Your task to perform on an android device: open app "Firefox Browser" (install if not already installed), go to login, and select forgot password Image 0: 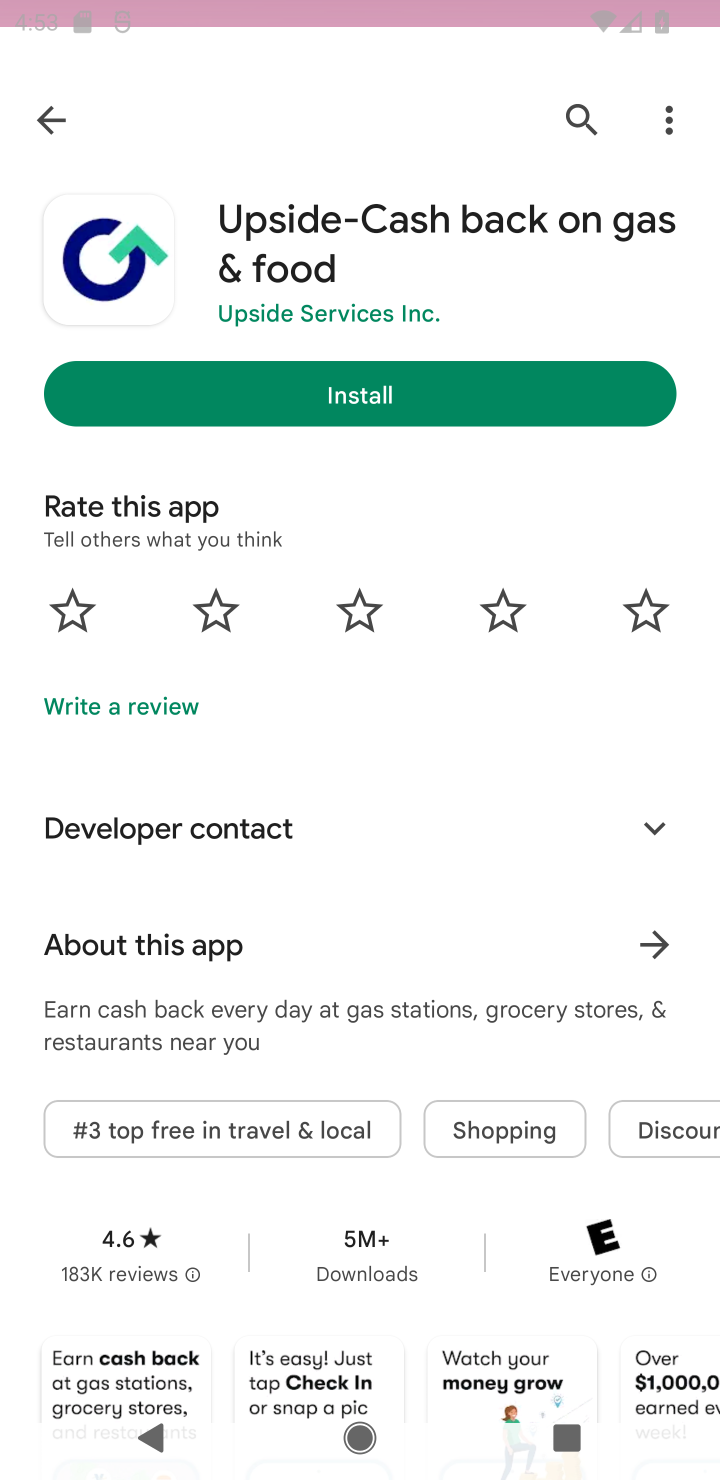
Step 0: click (351, 344)
Your task to perform on an android device: open app "Firefox Browser" (install if not already installed), go to login, and select forgot password Image 1: 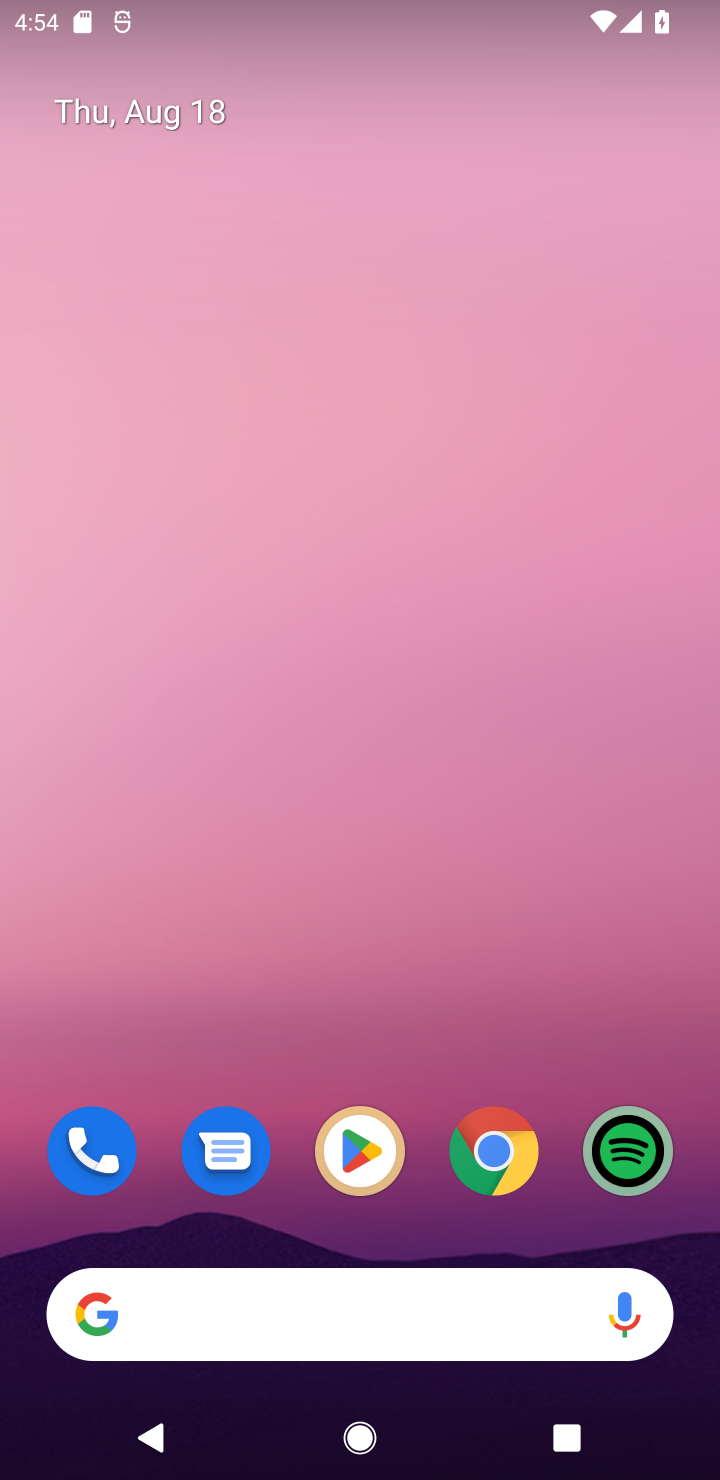
Step 1: drag from (432, 1135) to (509, 74)
Your task to perform on an android device: open app "Firefox Browser" (install if not already installed), go to login, and select forgot password Image 2: 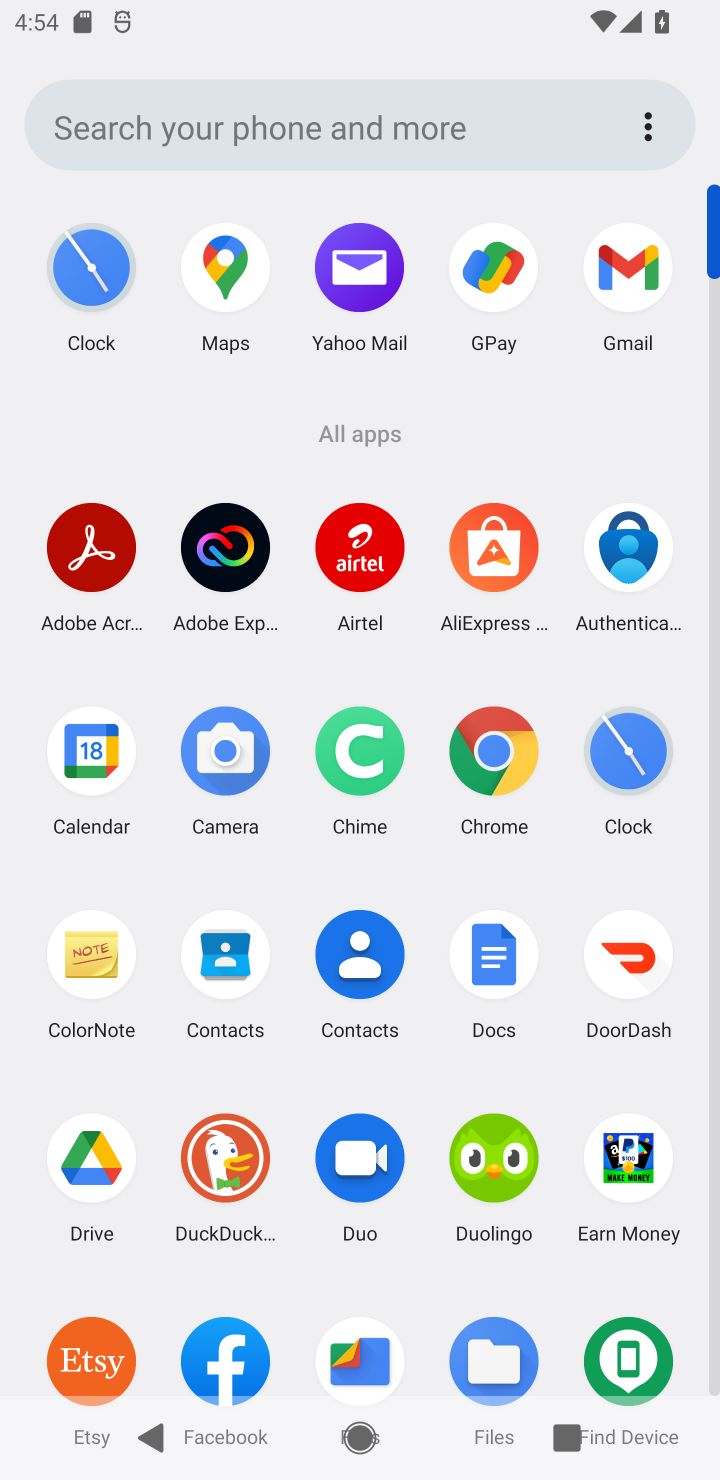
Step 2: drag from (336, 982) to (381, 684)
Your task to perform on an android device: open app "Firefox Browser" (install if not already installed), go to login, and select forgot password Image 3: 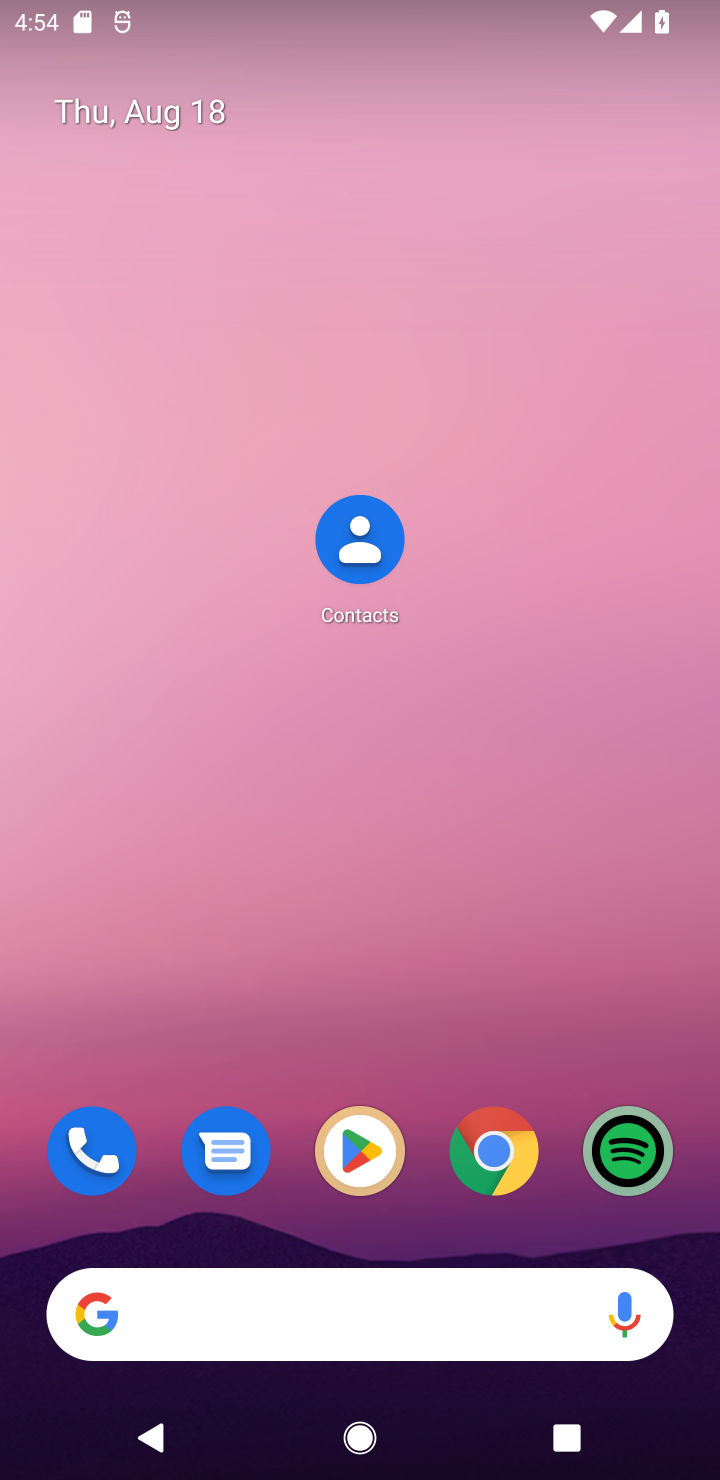
Step 3: press home button
Your task to perform on an android device: open app "Firefox Browser" (install if not already installed), go to login, and select forgot password Image 4: 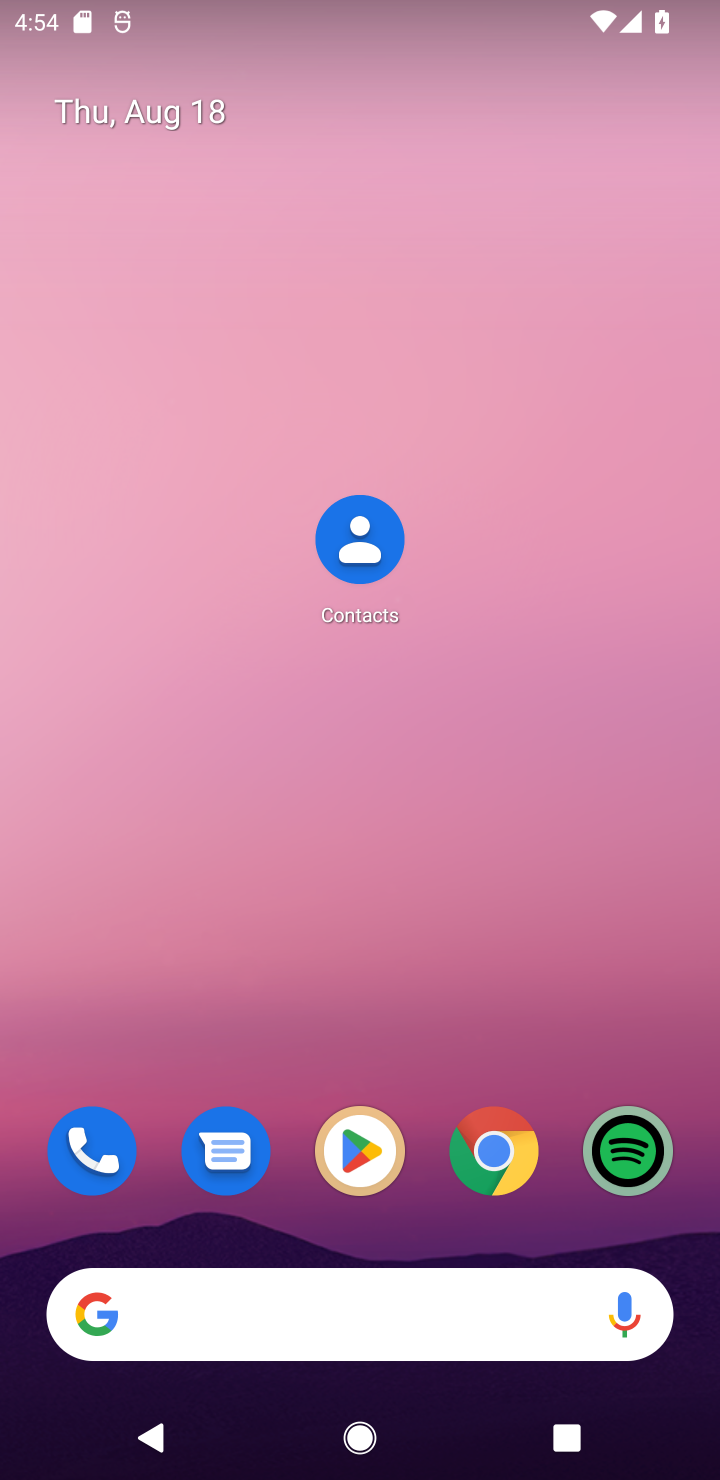
Step 4: click (355, 1156)
Your task to perform on an android device: open app "Firefox Browser" (install if not already installed), go to login, and select forgot password Image 5: 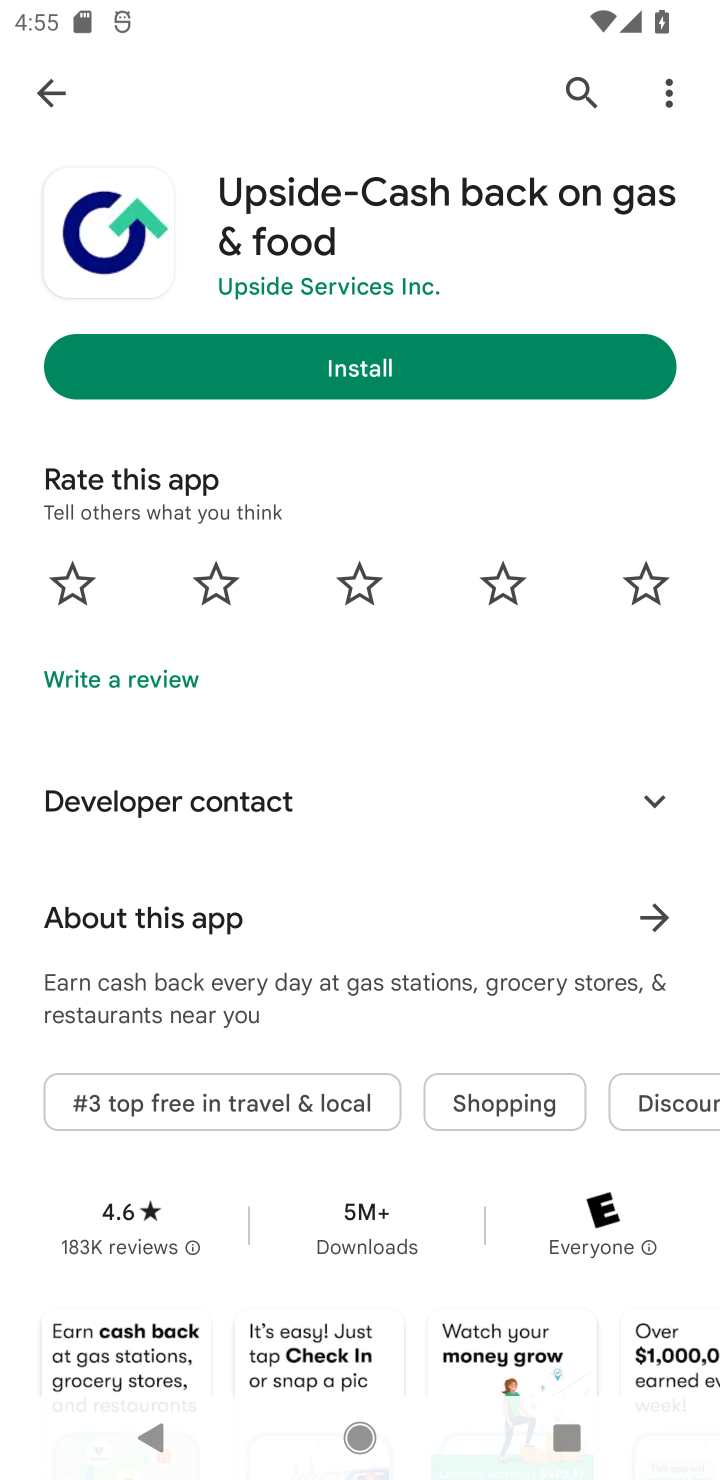
Step 5: click (452, 376)
Your task to perform on an android device: open app "Firefox Browser" (install if not already installed), go to login, and select forgot password Image 6: 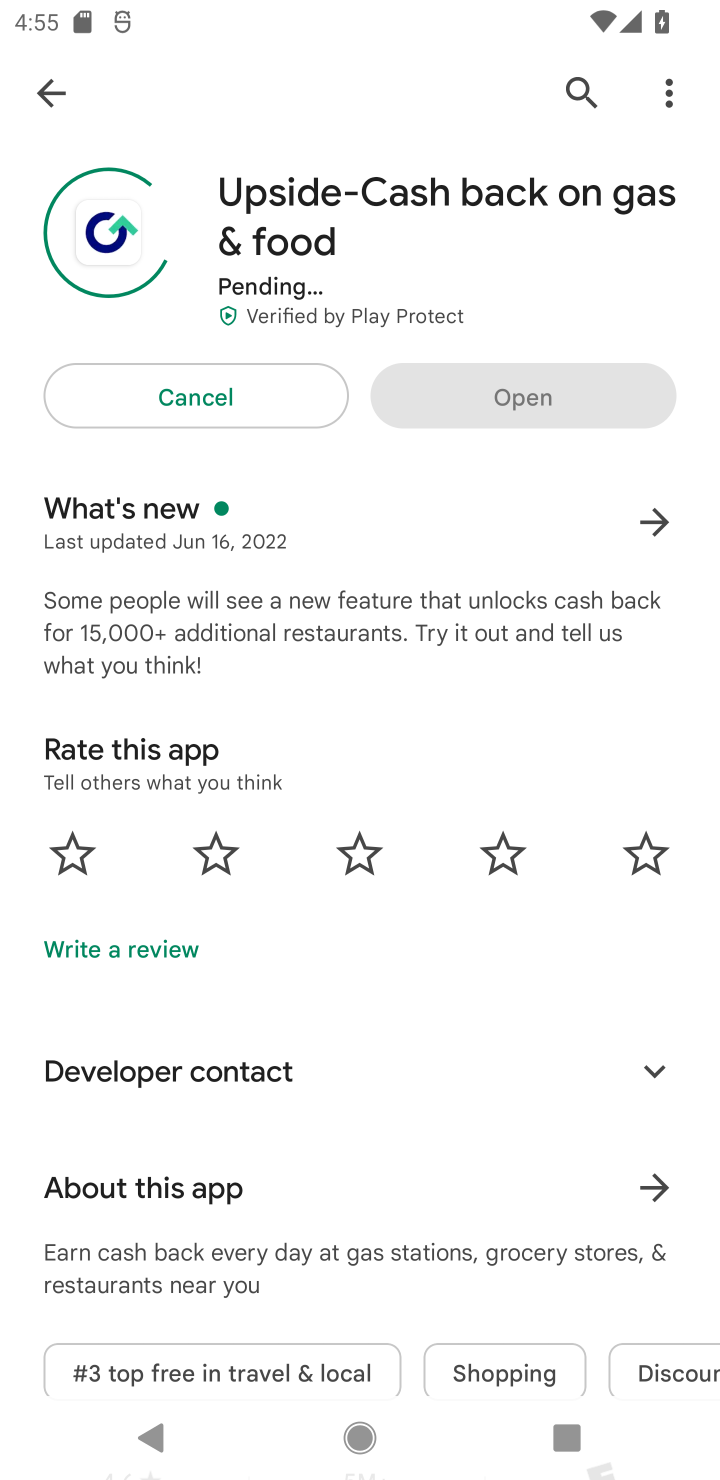
Step 6: click (609, 98)
Your task to perform on an android device: open app "Firefox Browser" (install if not already installed), go to login, and select forgot password Image 7: 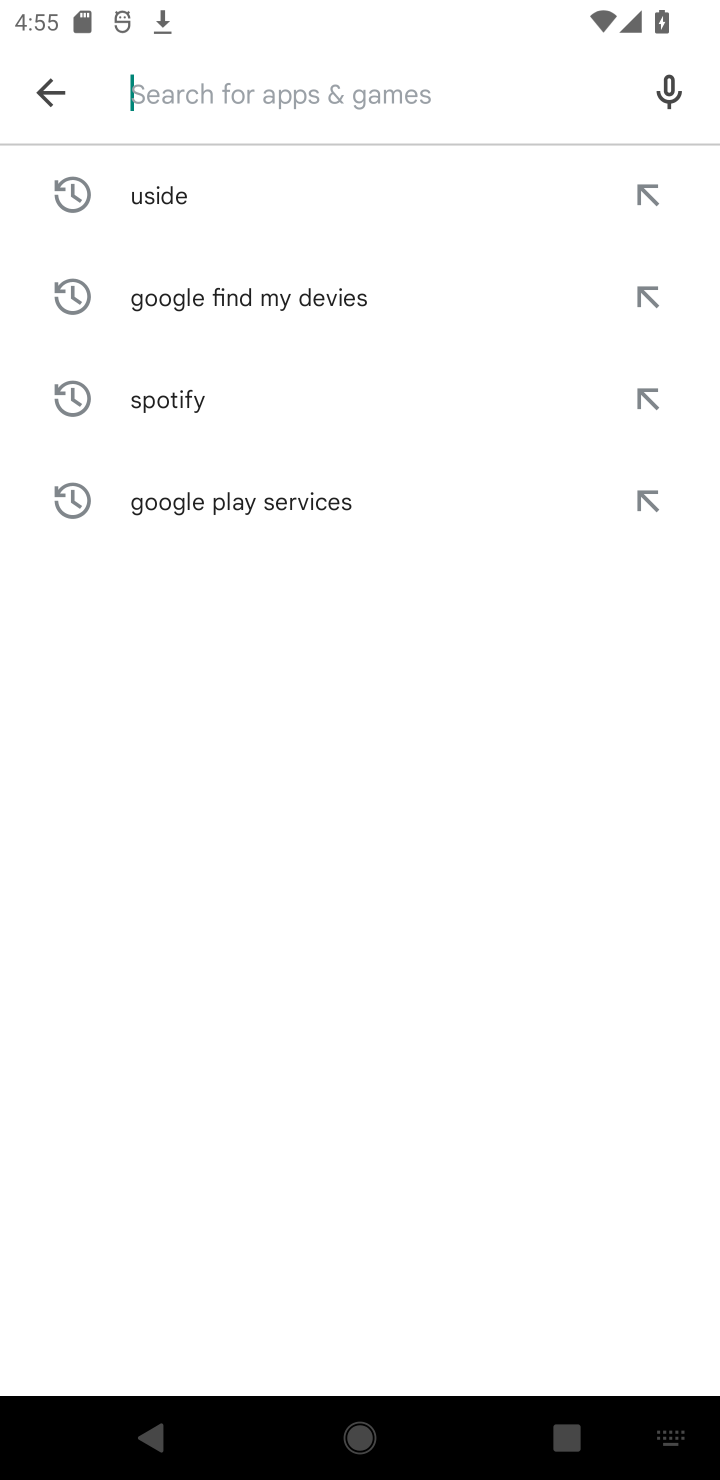
Step 7: type "firefox"
Your task to perform on an android device: open app "Firefox Browser" (install if not already installed), go to login, and select forgot password Image 8: 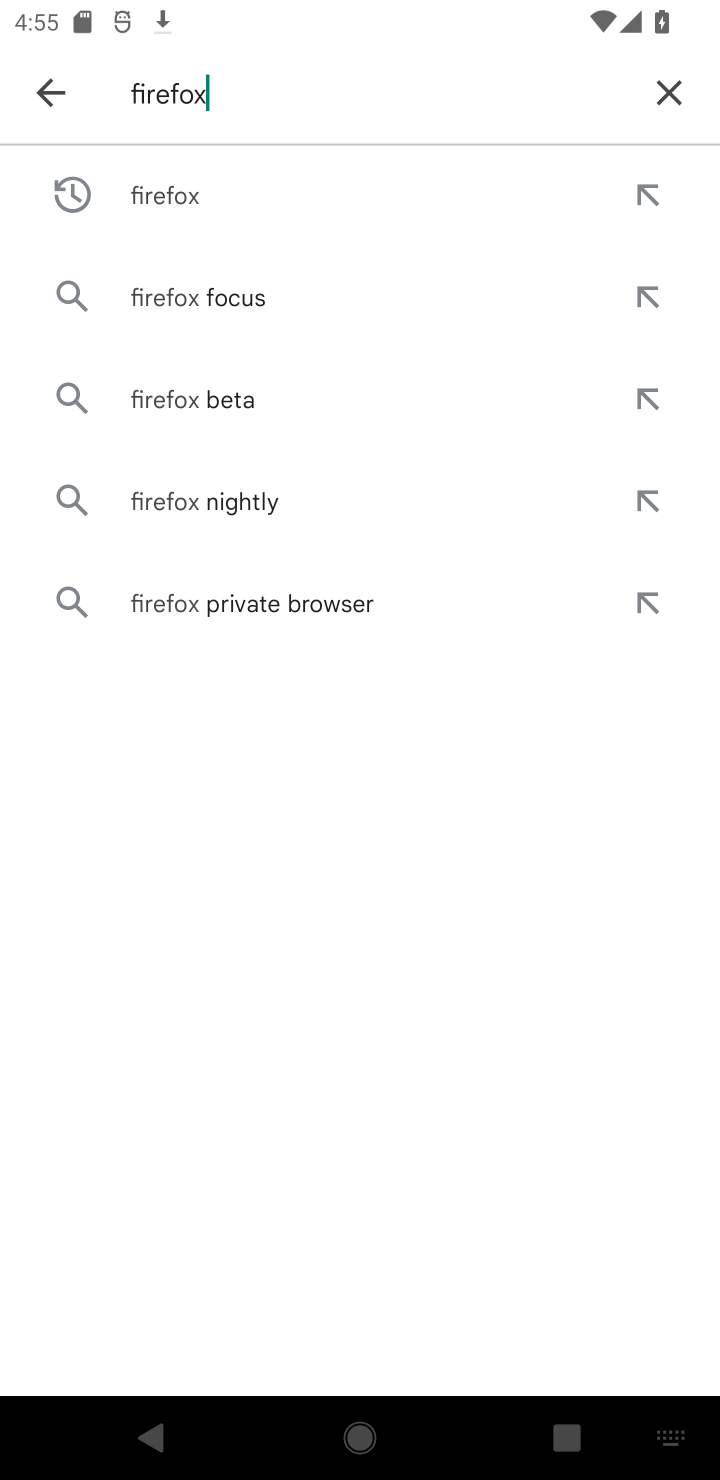
Step 8: click (202, 197)
Your task to perform on an android device: open app "Firefox Browser" (install if not already installed), go to login, and select forgot password Image 9: 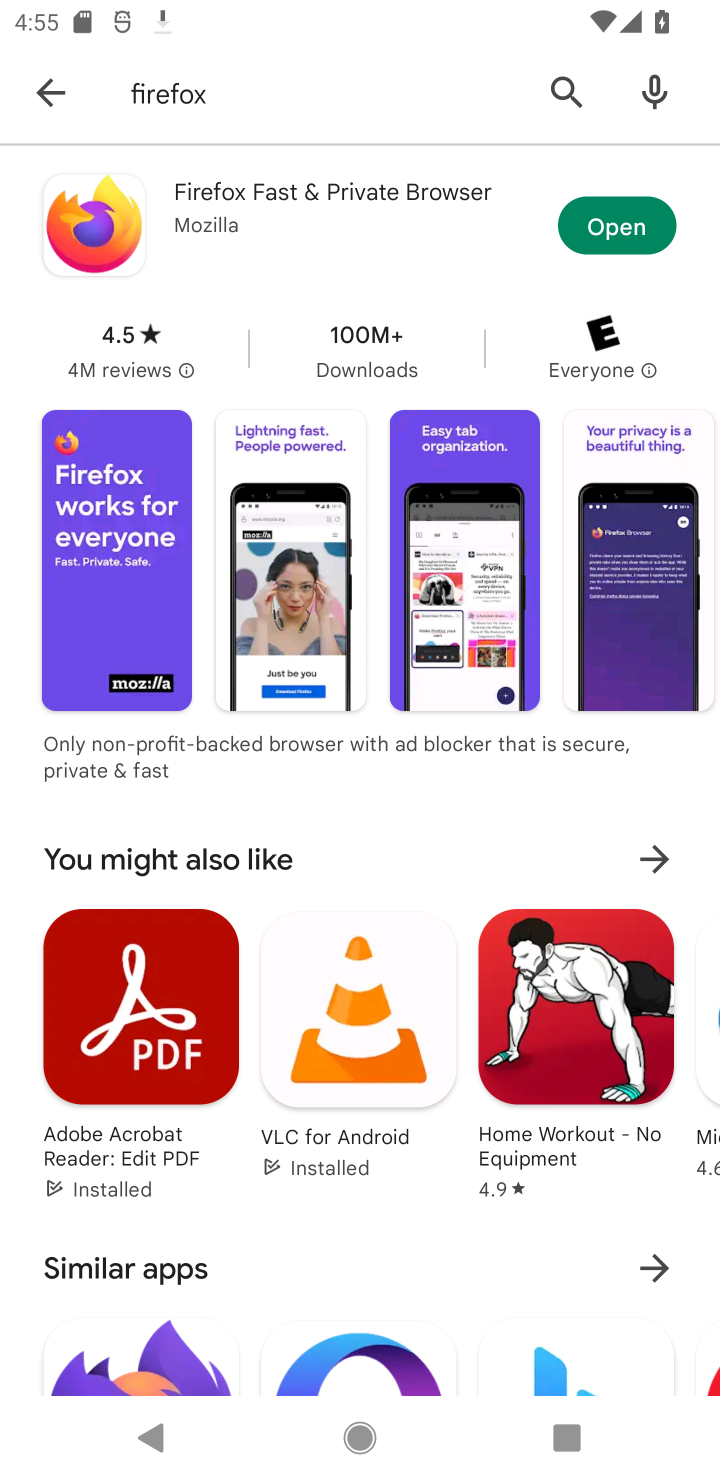
Step 9: click (568, 229)
Your task to perform on an android device: open app "Firefox Browser" (install if not already installed), go to login, and select forgot password Image 10: 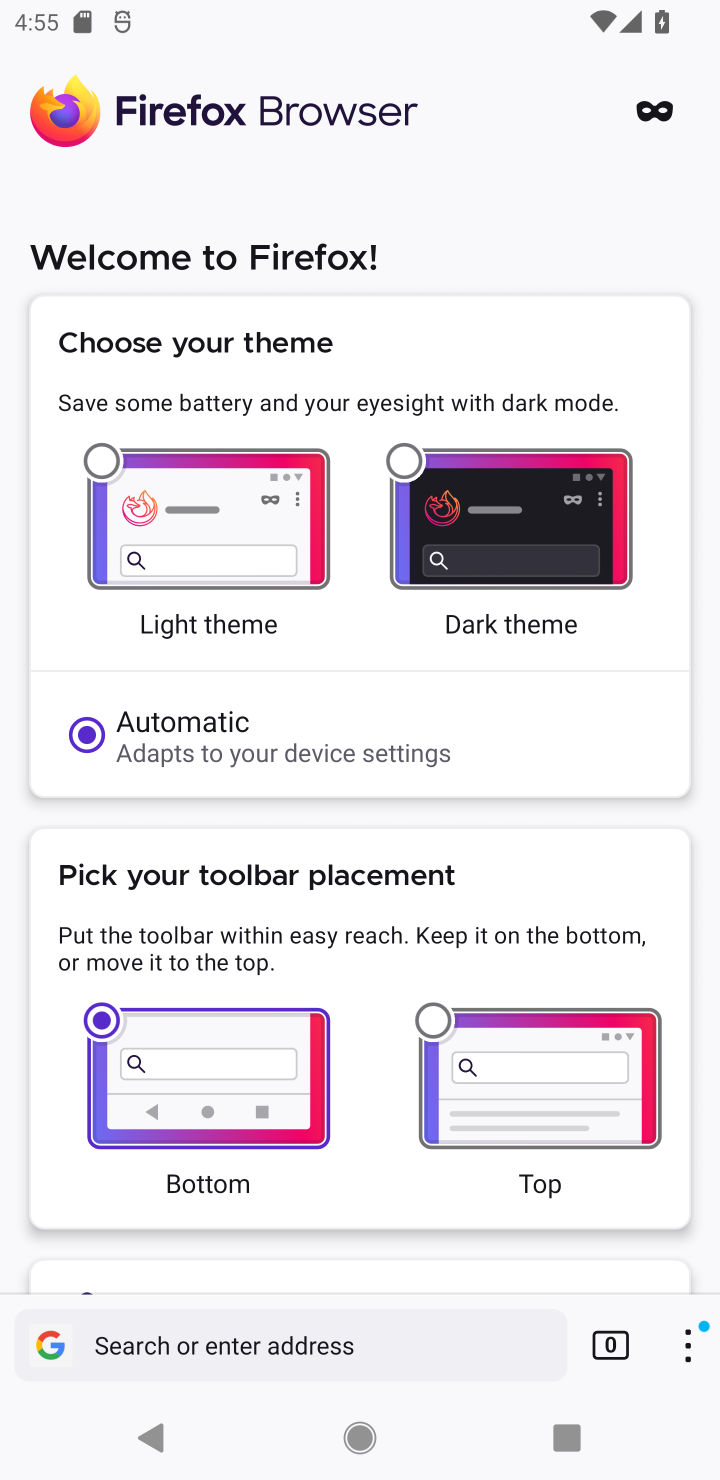
Step 10: task complete